Your task to perform on an android device: What's the weather? Image 0: 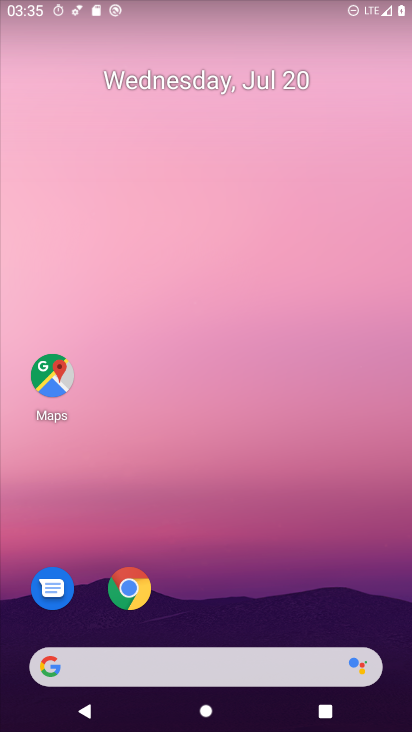
Step 0: click (191, 656)
Your task to perform on an android device: What's the weather? Image 1: 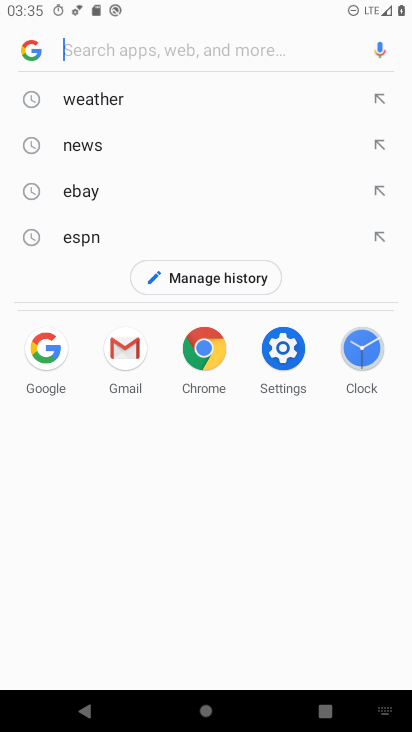
Step 1: click (93, 99)
Your task to perform on an android device: What's the weather? Image 2: 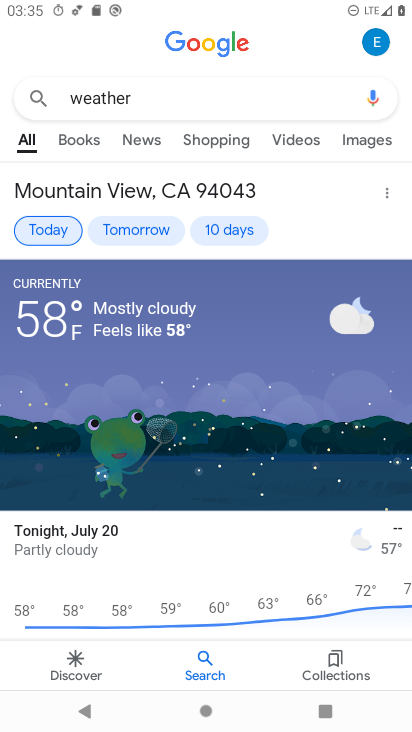
Step 2: task complete